Your task to perform on an android device: add a contact Image 0: 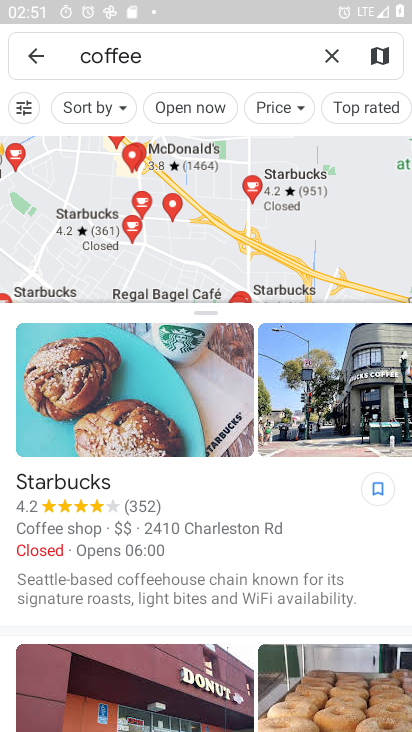
Step 0: press home button
Your task to perform on an android device: add a contact Image 1: 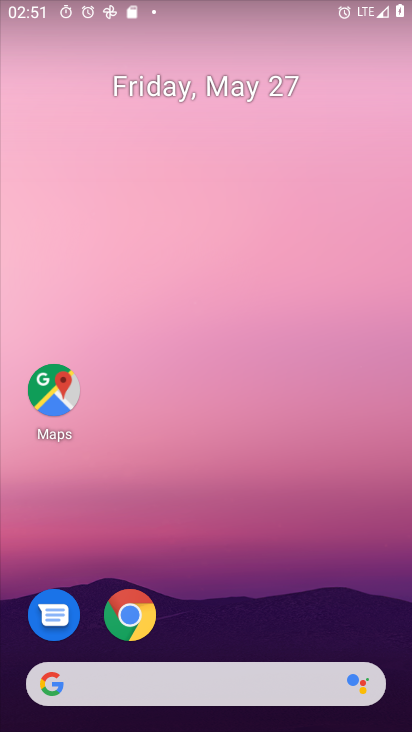
Step 1: drag from (340, 628) to (337, 137)
Your task to perform on an android device: add a contact Image 2: 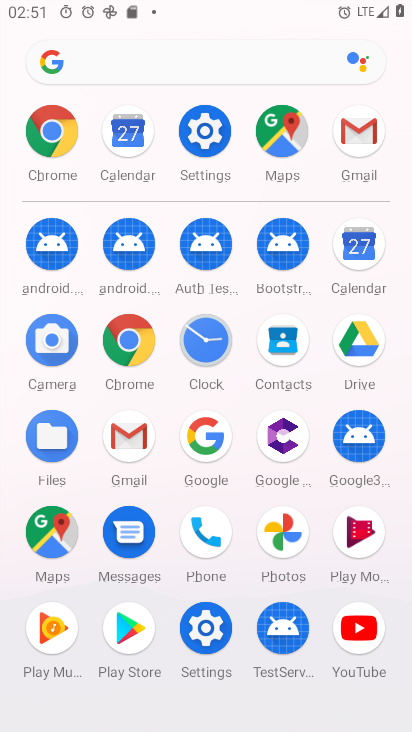
Step 2: click (278, 346)
Your task to perform on an android device: add a contact Image 3: 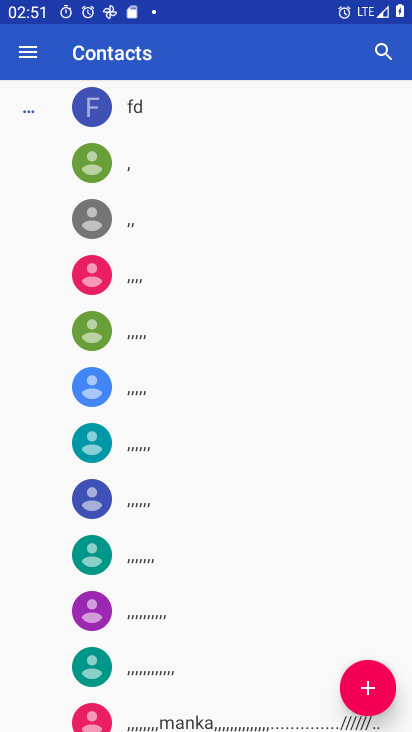
Step 3: click (358, 685)
Your task to perform on an android device: add a contact Image 4: 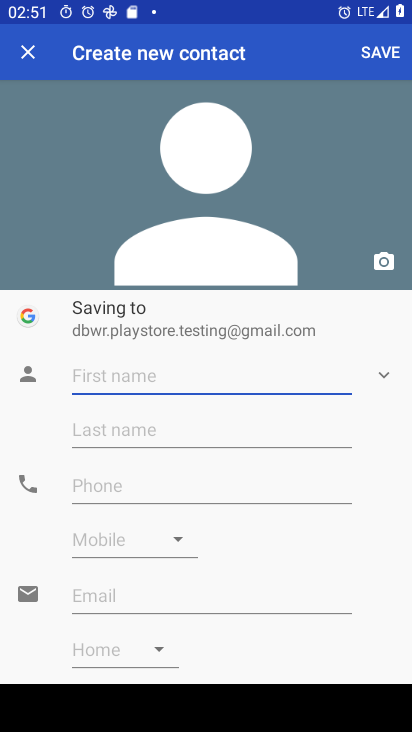
Step 4: click (195, 370)
Your task to perform on an android device: add a contact Image 5: 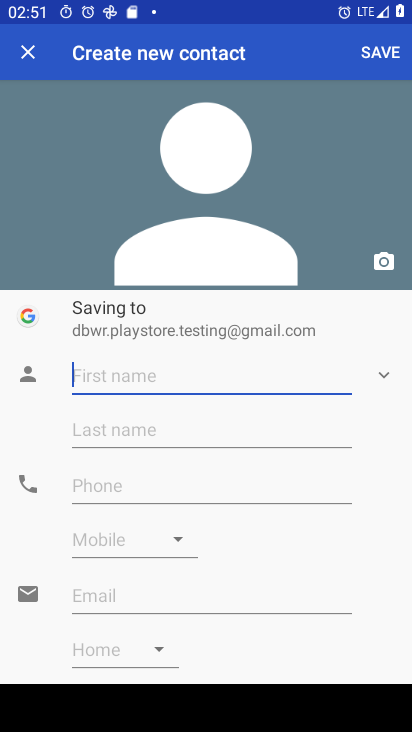
Step 5: type "gggg"
Your task to perform on an android device: add a contact Image 6: 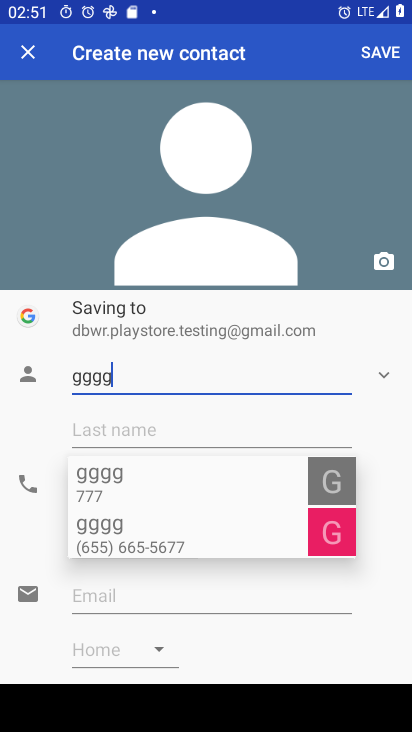
Step 6: click (389, 495)
Your task to perform on an android device: add a contact Image 7: 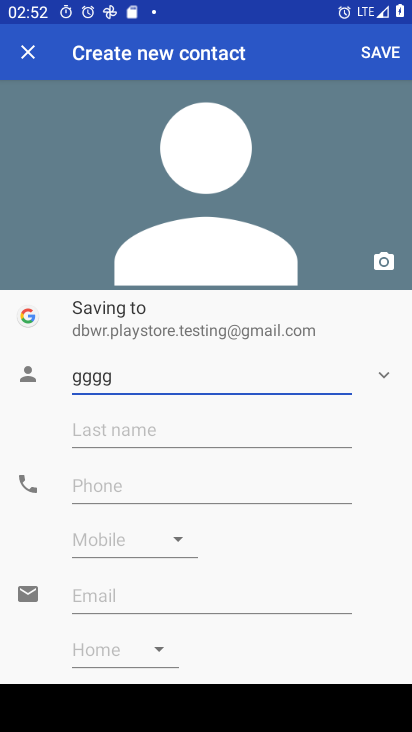
Step 7: click (206, 492)
Your task to perform on an android device: add a contact Image 8: 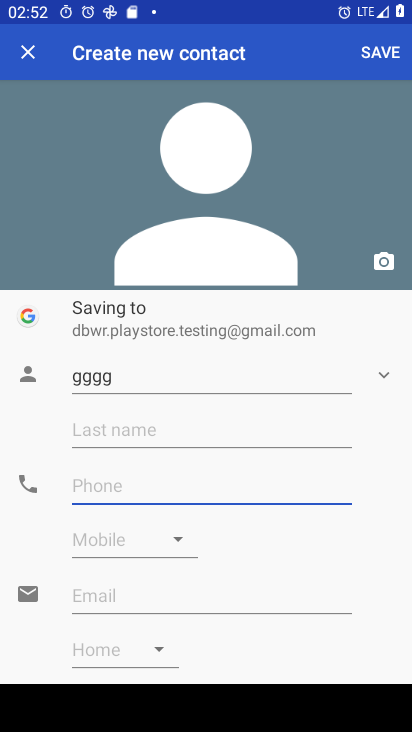
Step 8: type "123456789"
Your task to perform on an android device: add a contact Image 9: 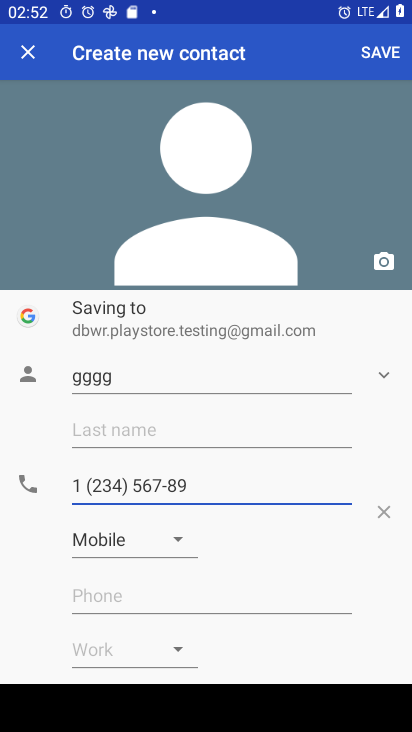
Step 9: click (371, 56)
Your task to perform on an android device: add a contact Image 10: 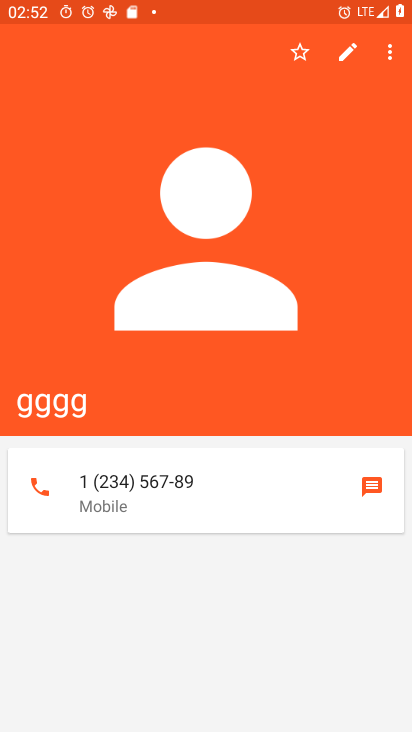
Step 10: task complete